Your task to perform on an android device: Go to Google Image 0: 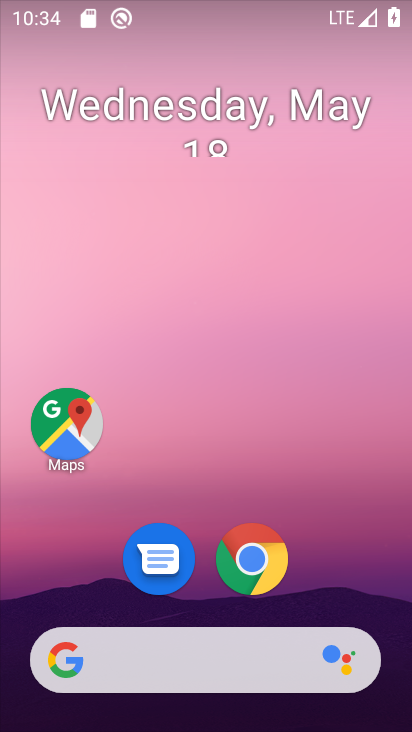
Step 0: click (173, 659)
Your task to perform on an android device: Go to Google Image 1: 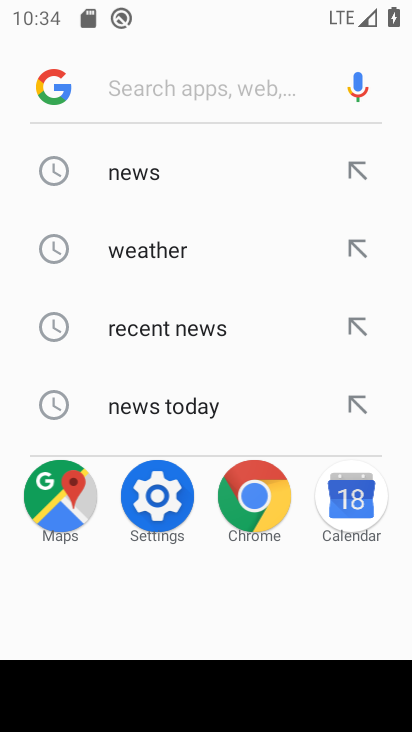
Step 1: click (58, 97)
Your task to perform on an android device: Go to Google Image 2: 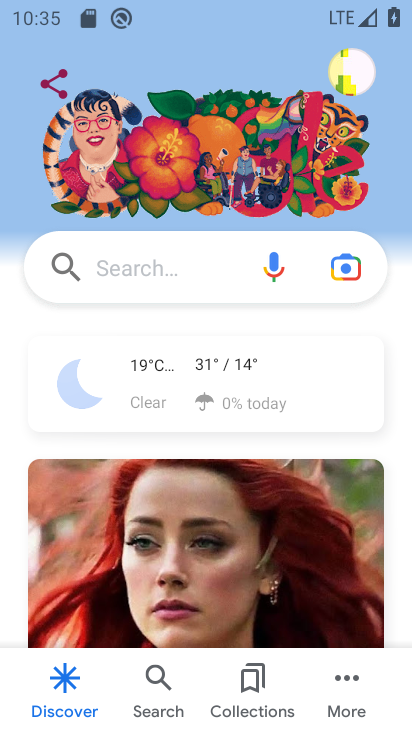
Step 2: task complete